Your task to perform on an android device: change alarm snooze length Image 0: 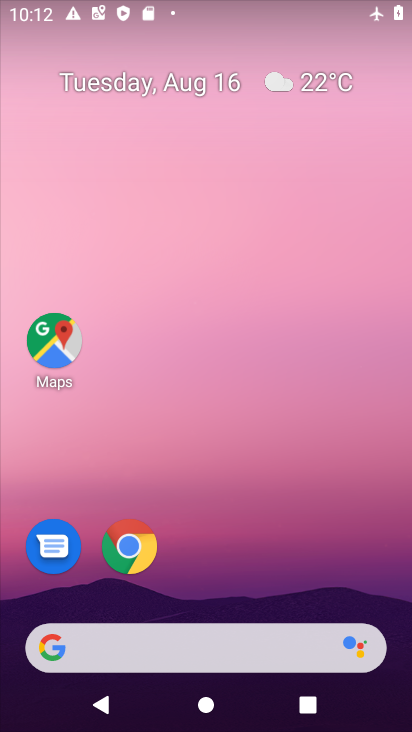
Step 0: drag from (226, 550) to (329, 0)
Your task to perform on an android device: change alarm snooze length Image 1: 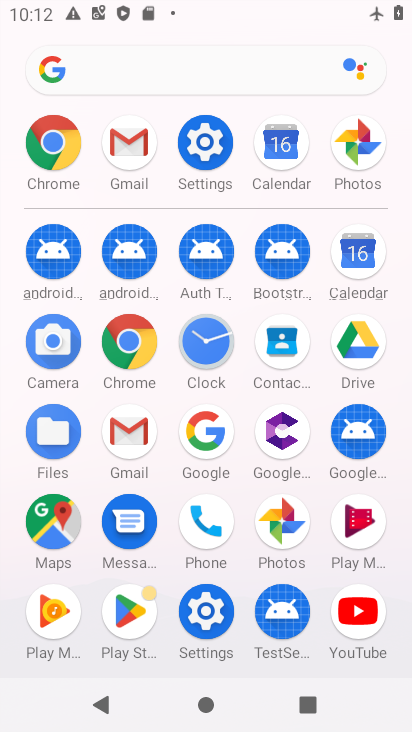
Step 1: click (210, 342)
Your task to perform on an android device: change alarm snooze length Image 2: 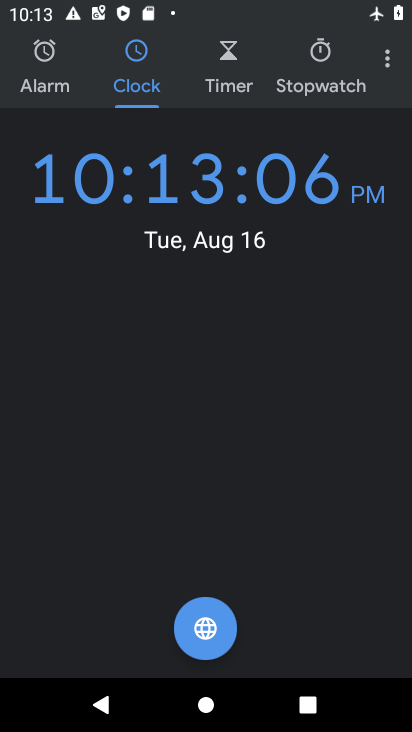
Step 2: click (384, 62)
Your task to perform on an android device: change alarm snooze length Image 3: 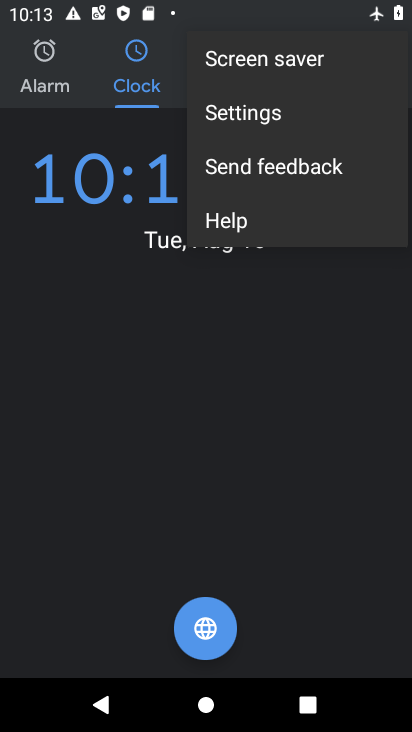
Step 3: click (278, 116)
Your task to perform on an android device: change alarm snooze length Image 4: 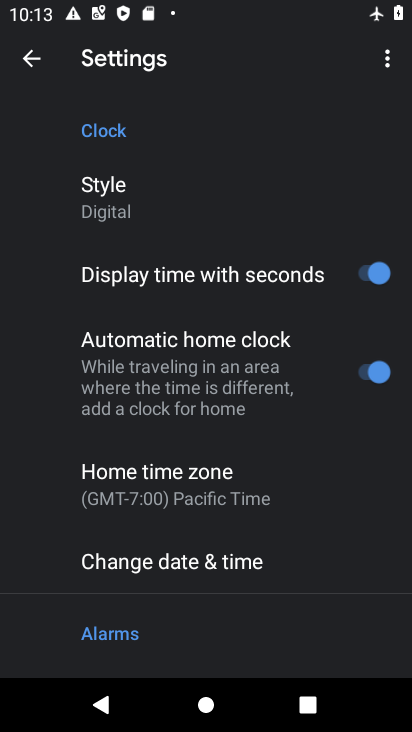
Step 4: drag from (213, 510) to (318, 90)
Your task to perform on an android device: change alarm snooze length Image 5: 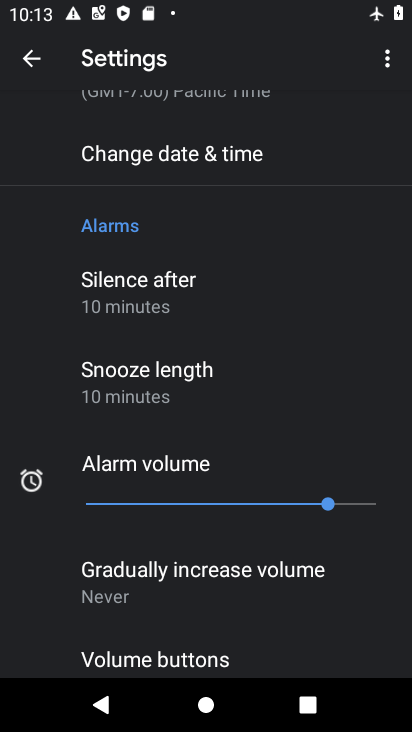
Step 5: click (193, 373)
Your task to perform on an android device: change alarm snooze length Image 6: 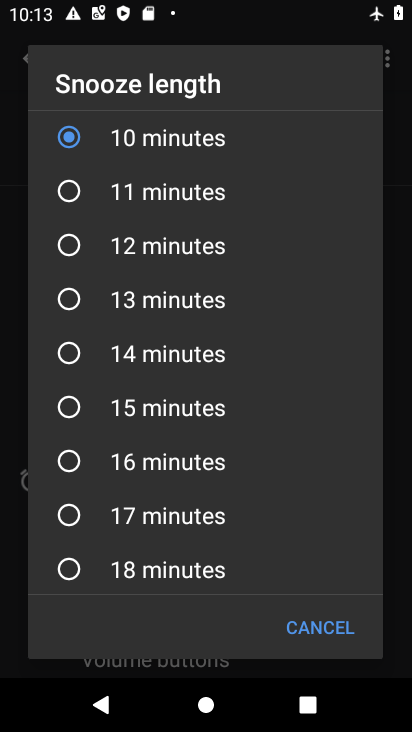
Step 6: click (83, 251)
Your task to perform on an android device: change alarm snooze length Image 7: 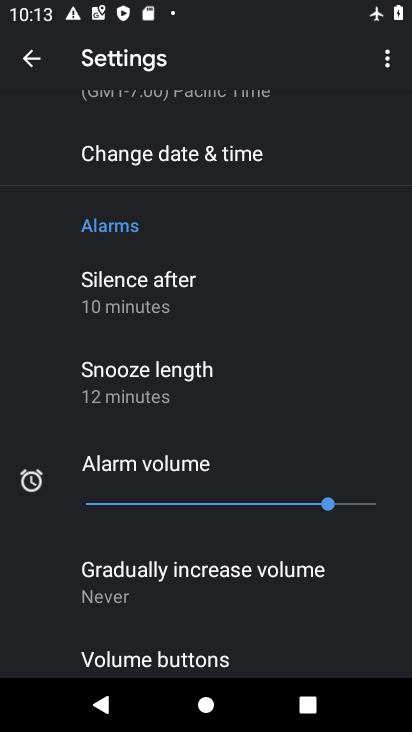
Step 7: task complete